Your task to perform on an android device: What is the news today? Image 0: 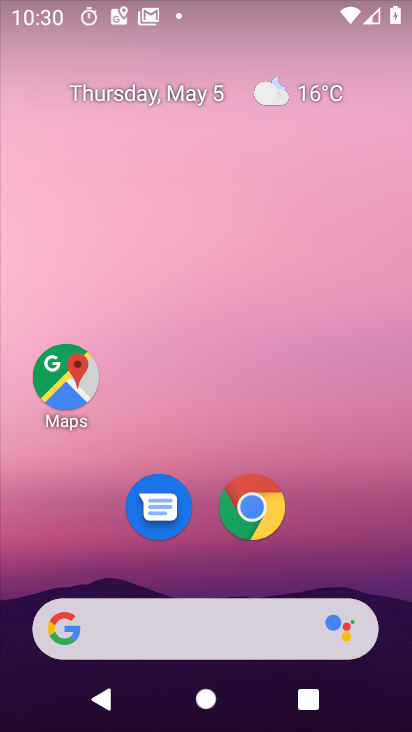
Step 0: click (254, 504)
Your task to perform on an android device: What is the news today? Image 1: 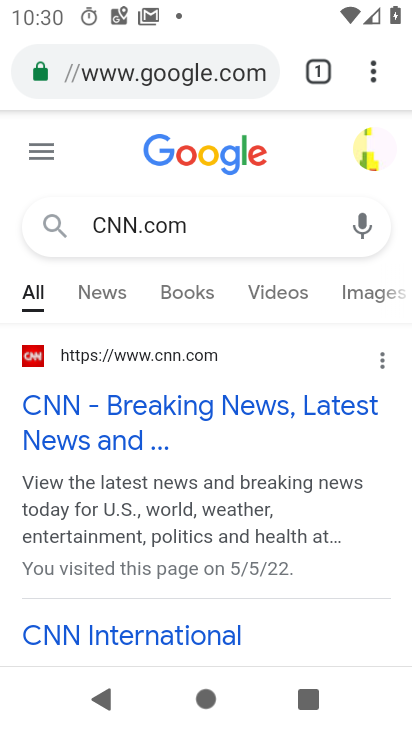
Step 1: click (155, 80)
Your task to perform on an android device: What is the news today? Image 2: 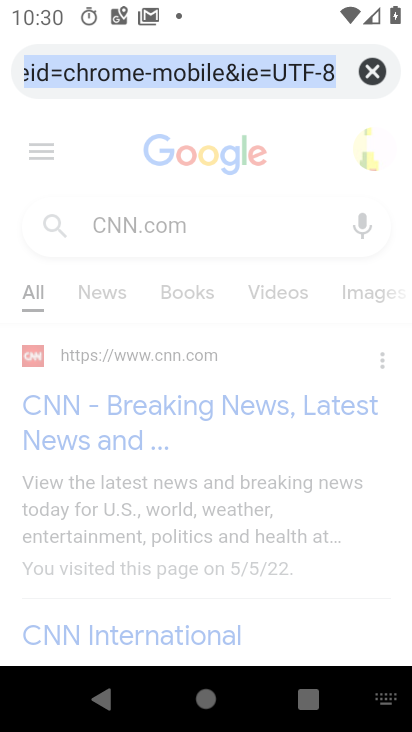
Step 2: type "news"
Your task to perform on an android device: What is the news today? Image 3: 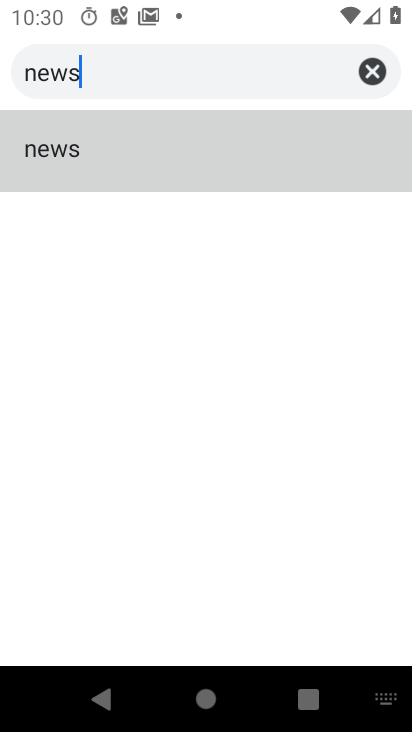
Step 3: click (69, 159)
Your task to perform on an android device: What is the news today? Image 4: 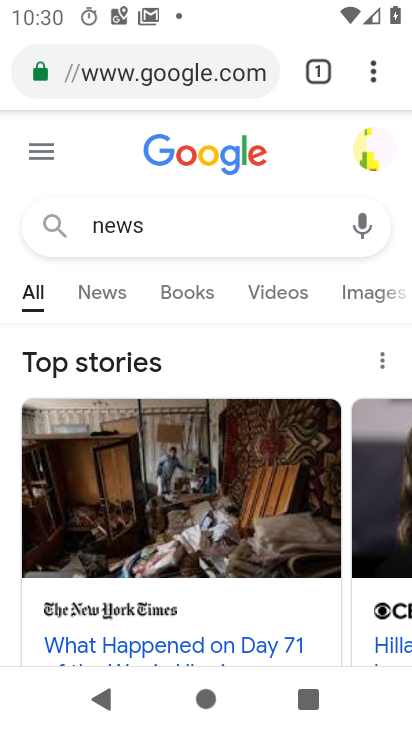
Step 4: task complete